Your task to perform on an android device: move an email to a new category in the gmail app Image 0: 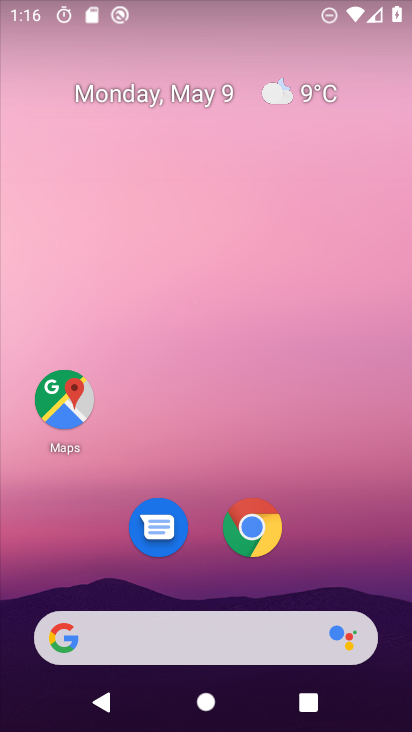
Step 0: drag from (230, 566) to (270, 26)
Your task to perform on an android device: move an email to a new category in the gmail app Image 1: 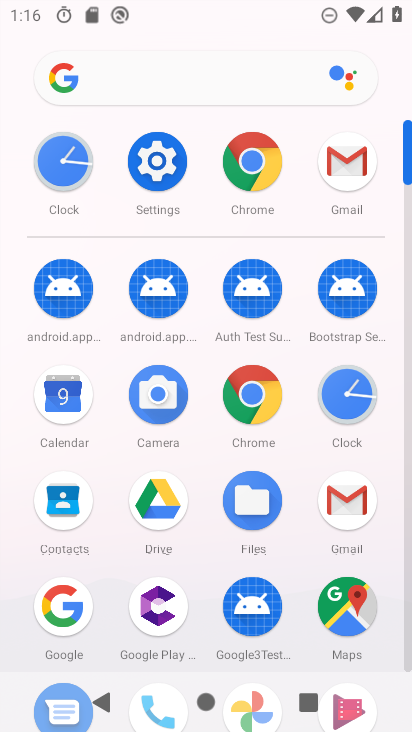
Step 1: click (347, 151)
Your task to perform on an android device: move an email to a new category in the gmail app Image 2: 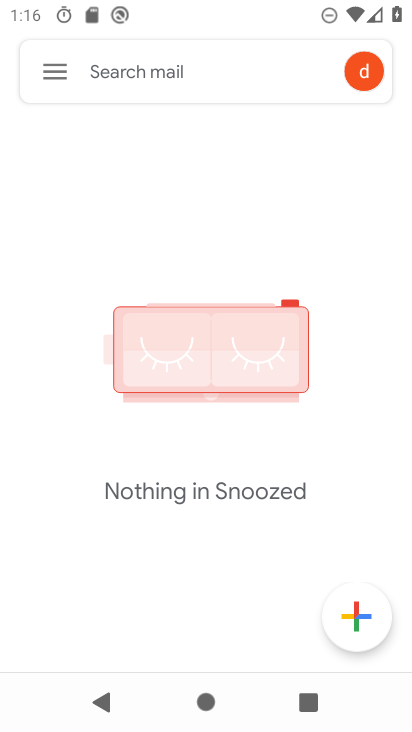
Step 2: click (52, 65)
Your task to perform on an android device: move an email to a new category in the gmail app Image 3: 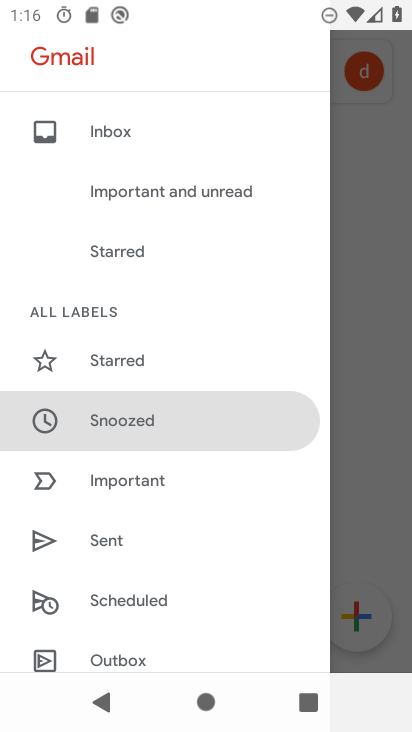
Step 3: drag from (191, 612) to (266, 133)
Your task to perform on an android device: move an email to a new category in the gmail app Image 4: 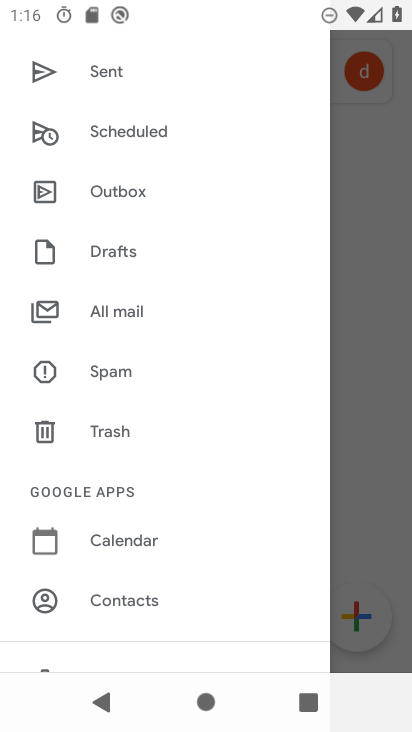
Step 4: click (129, 303)
Your task to perform on an android device: move an email to a new category in the gmail app Image 5: 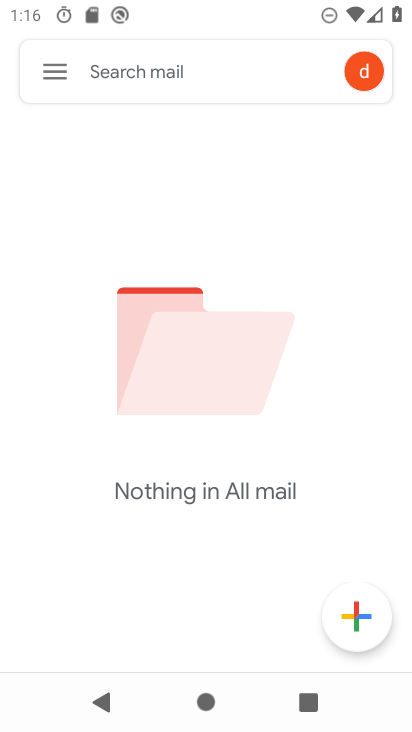
Step 5: task complete